Your task to perform on an android device: open app "Nova Launcher" (install if not already installed) Image 0: 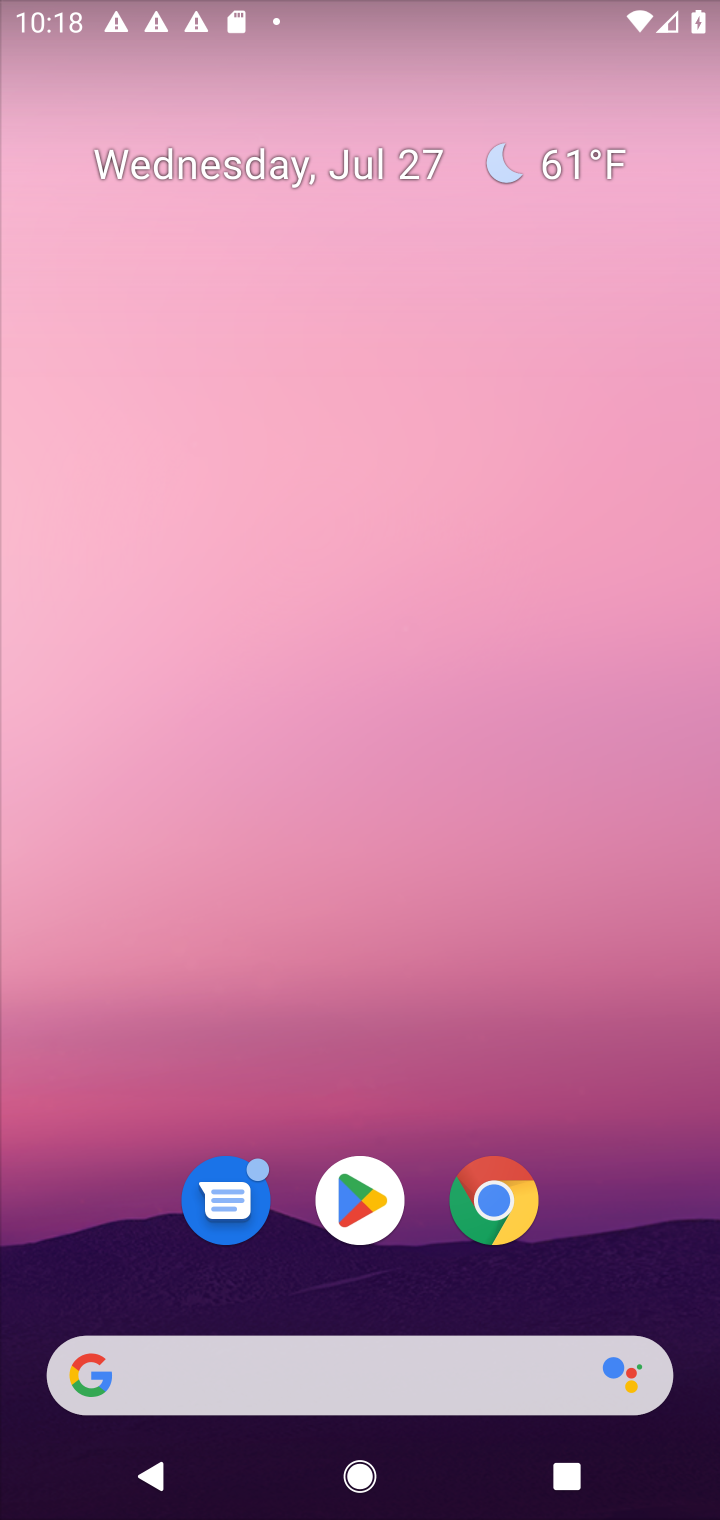
Step 0: click (379, 1174)
Your task to perform on an android device: open app "Nova Launcher" (install if not already installed) Image 1: 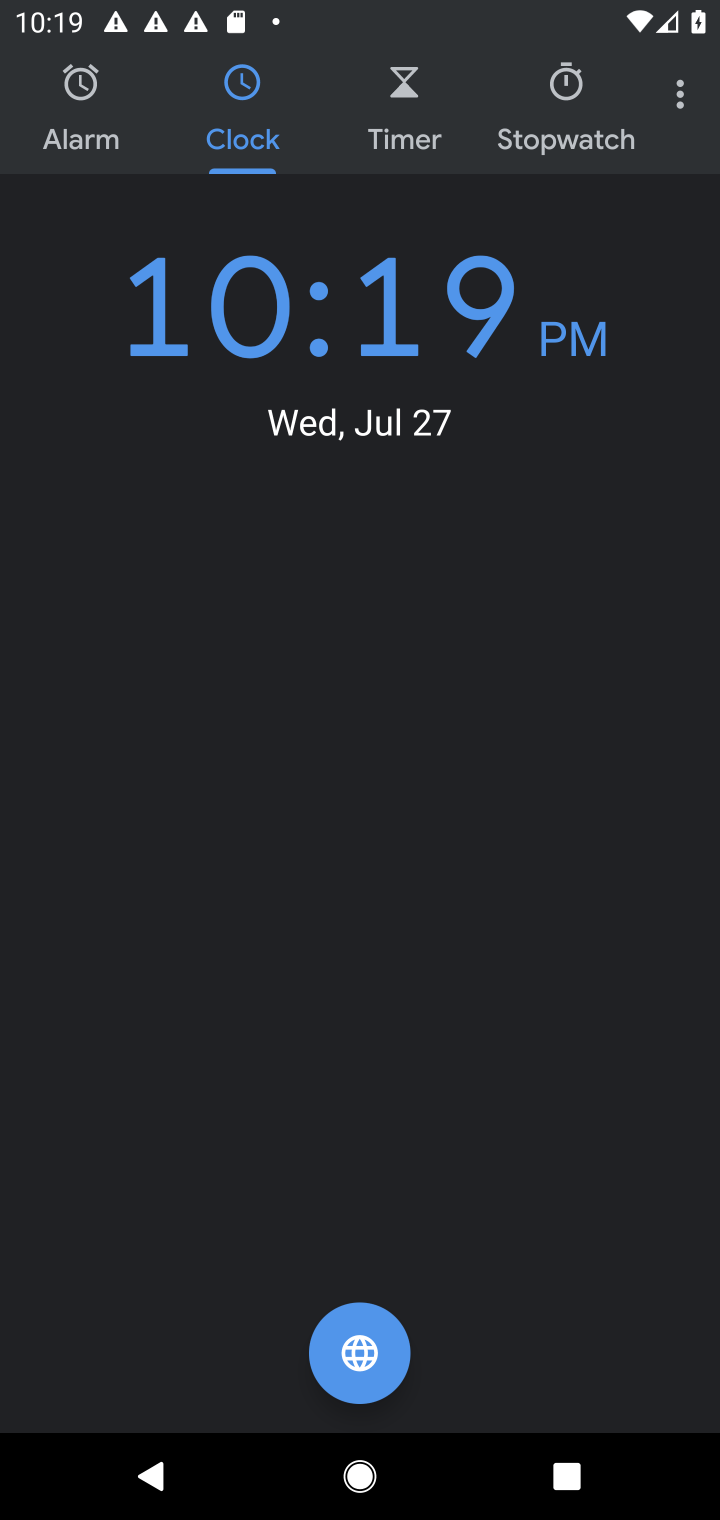
Step 1: press home button
Your task to perform on an android device: open app "Nova Launcher" (install if not already installed) Image 2: 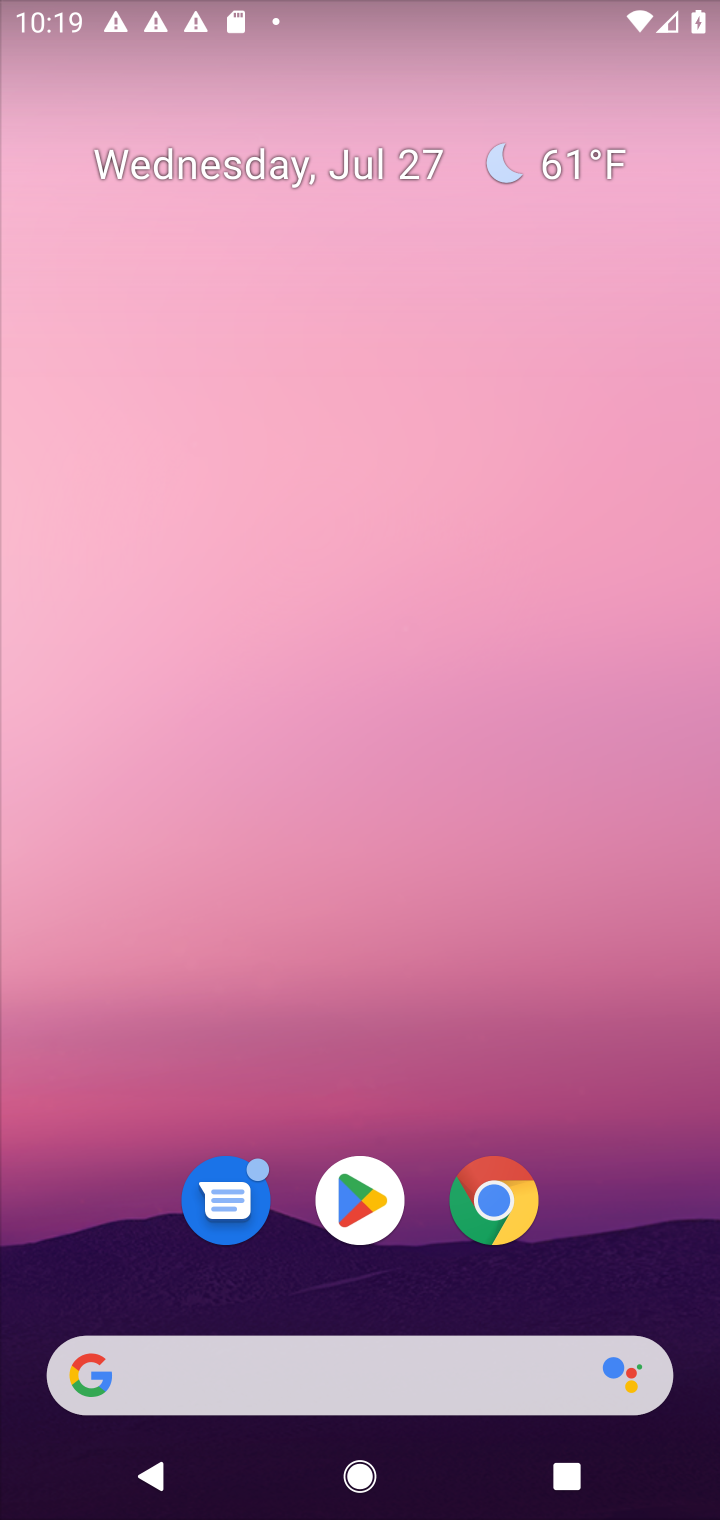
Step 2: click (361, 1200)
Your task to perform on an android device: open app "Nova Launcher" (install if not already installed) Image 3: 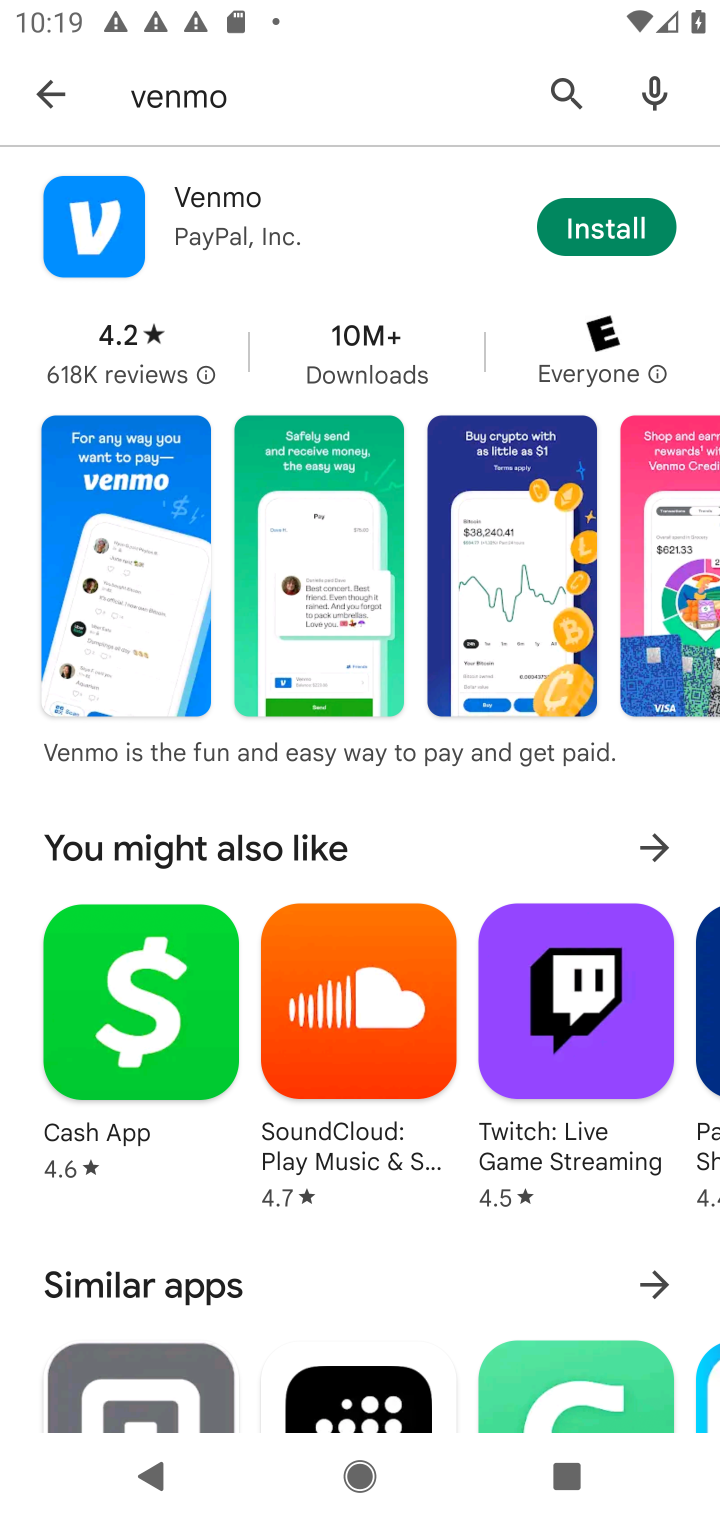
Step 3: click (51, 88)
Your task to perform on an android device: open app "Nova Launcher" (install if not already installed) Image 4: 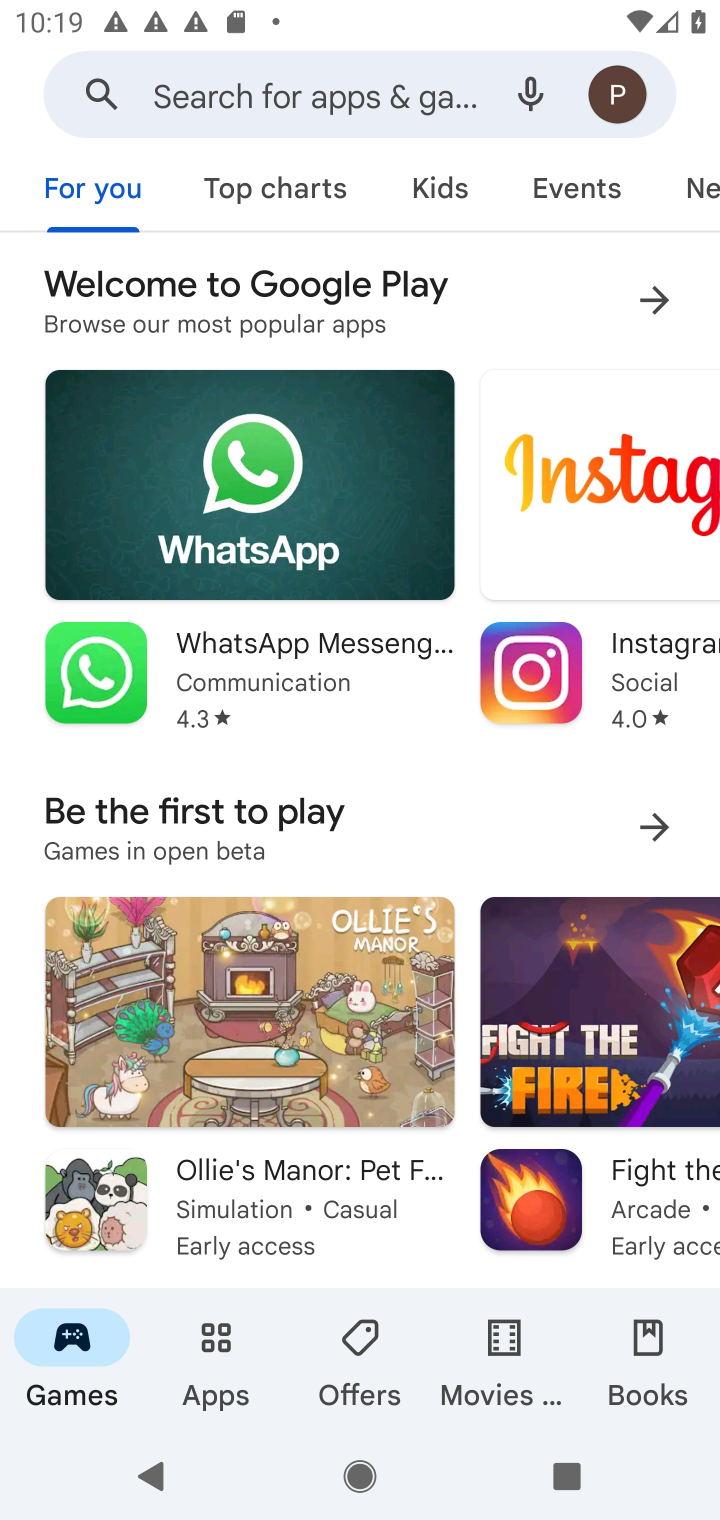
Step 4: click (218, 88)
Your task to perform on an android device: open app "Nova Launcher" (install if not already installed) Image 5: 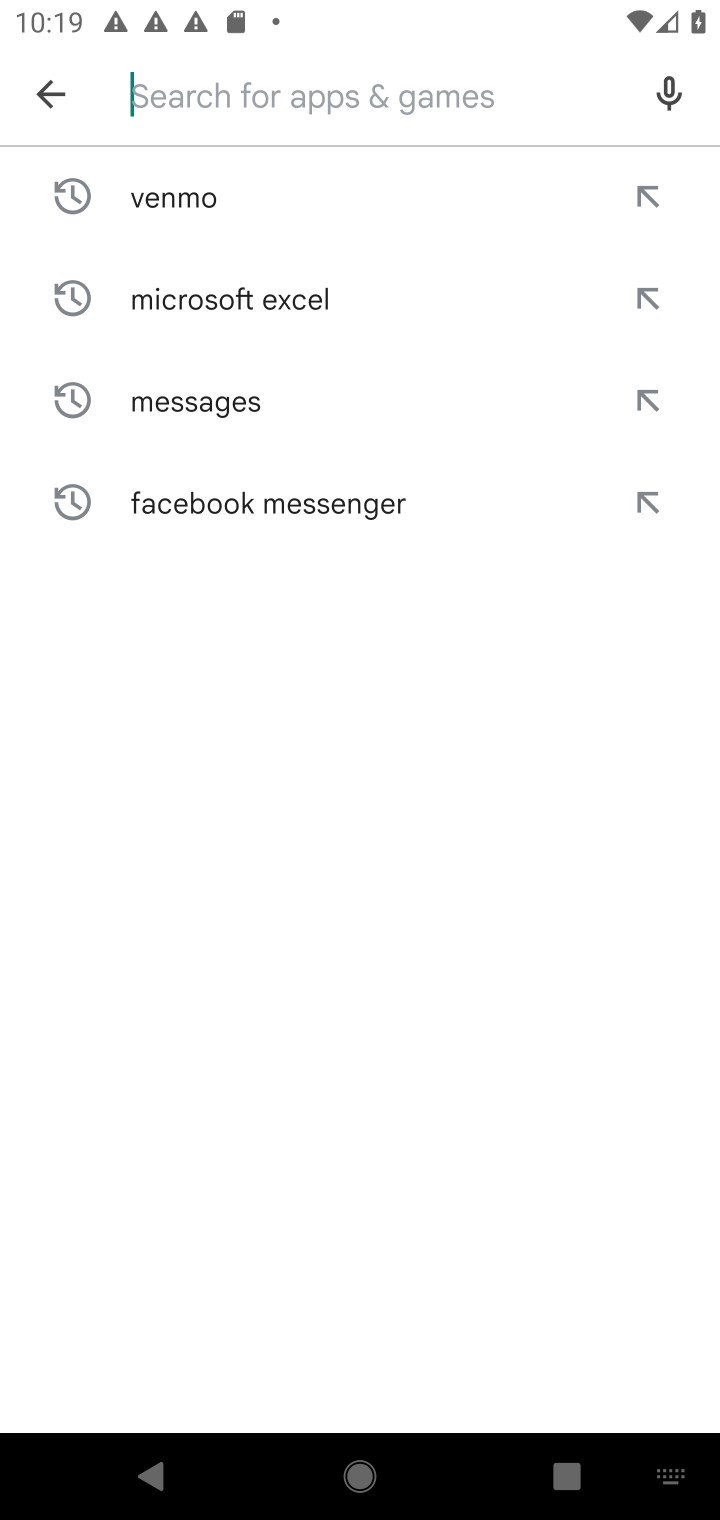
Step 5: type "nova launcher"
Your task to perform on an android device: open app "Nova Launcher" (install if not already installed) Image 6: 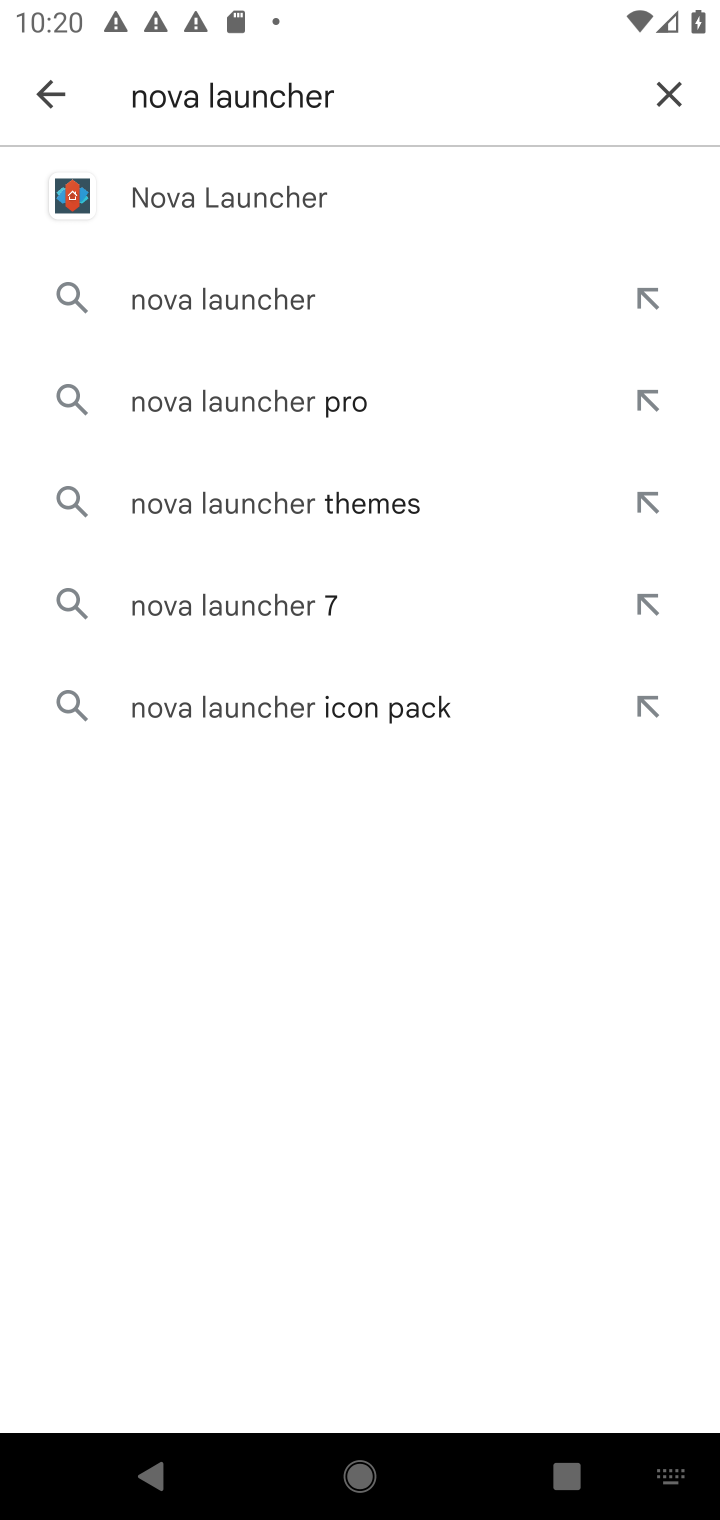
Step 6: click (270, 192)
Your task to perform on an android device: open app "Nova Launcher" (install if not already installed) Image 7: 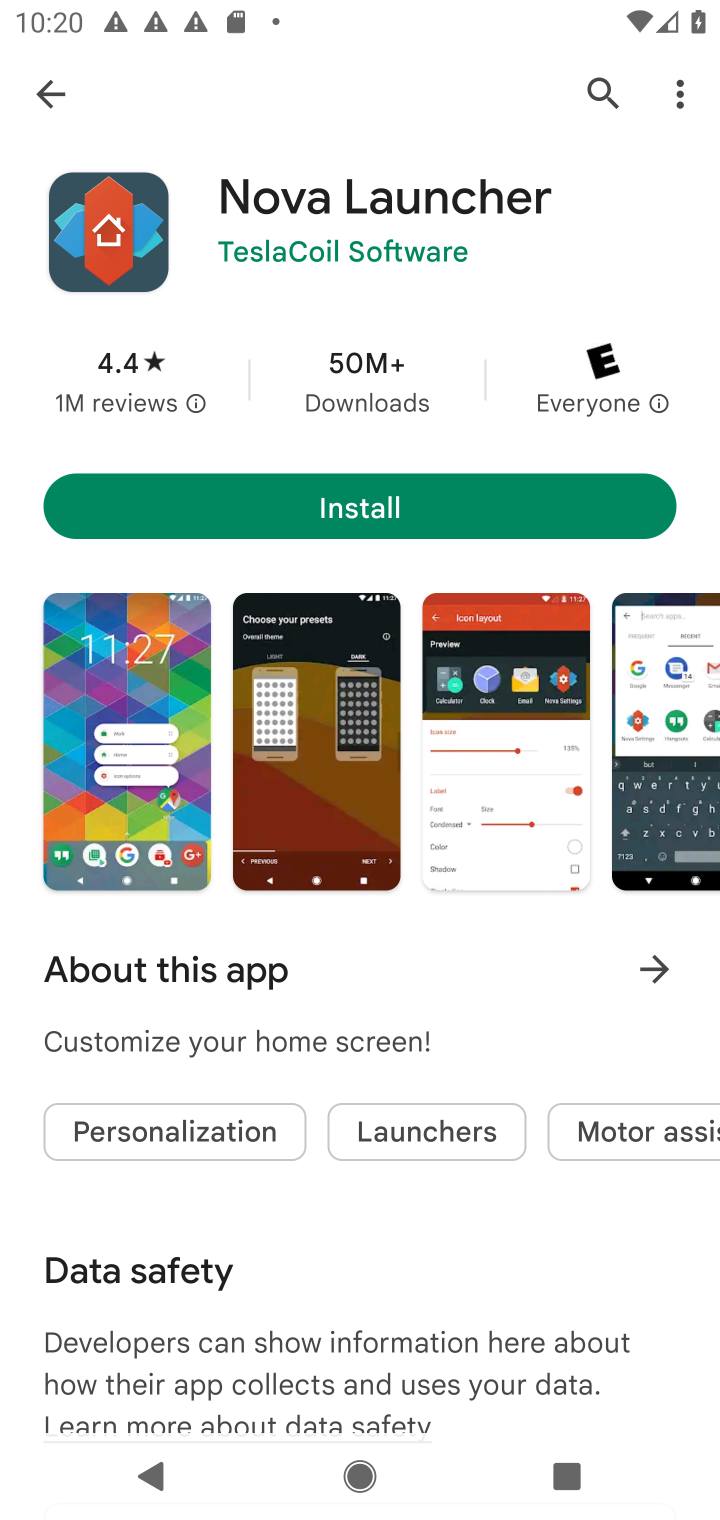
Step 7: click (340, 501)
Your task to perform on an android device: open app "Nova Launcher" (install if not already installed) Image 8: 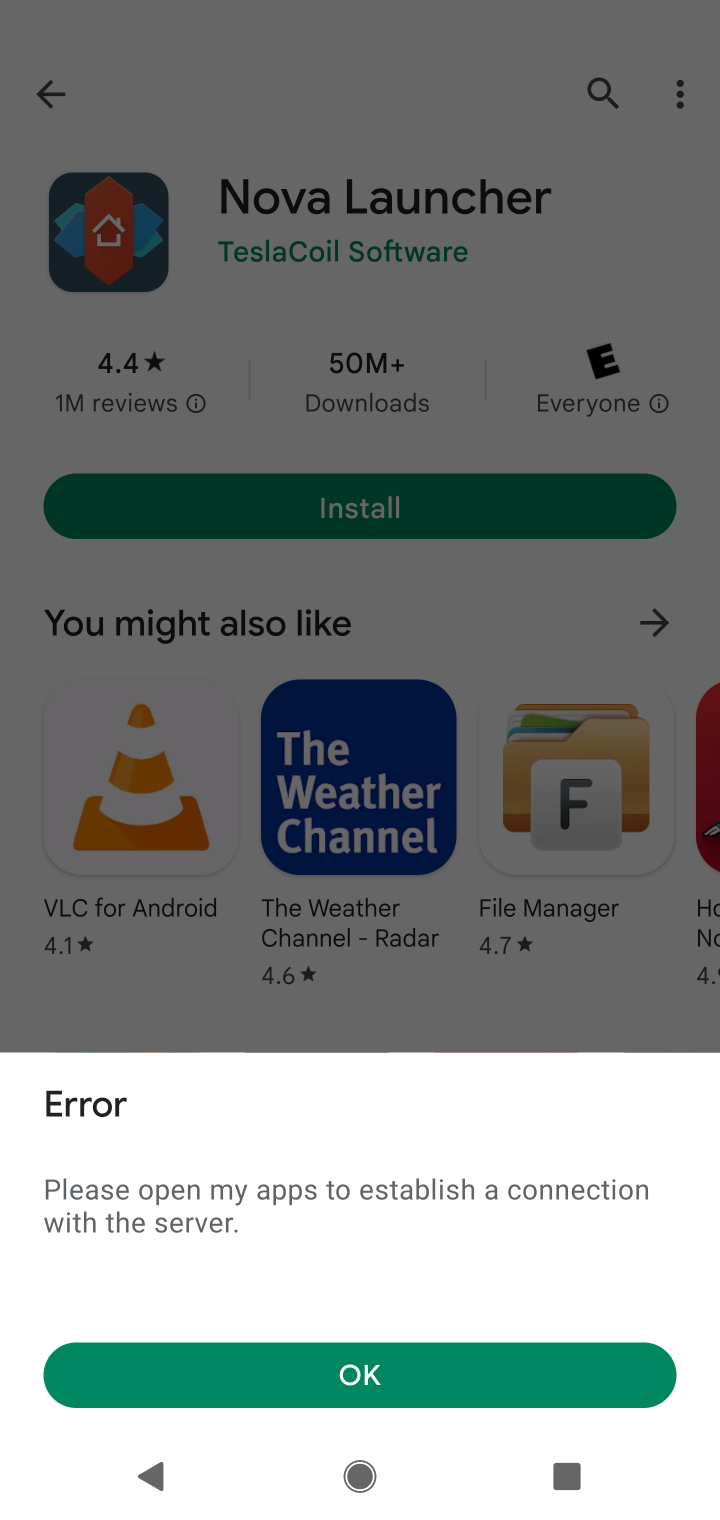
Step 8: click (371, 1362)
Your task to perform on an android device: open app "Nova Launcher" (install if not already installed) Image 9: 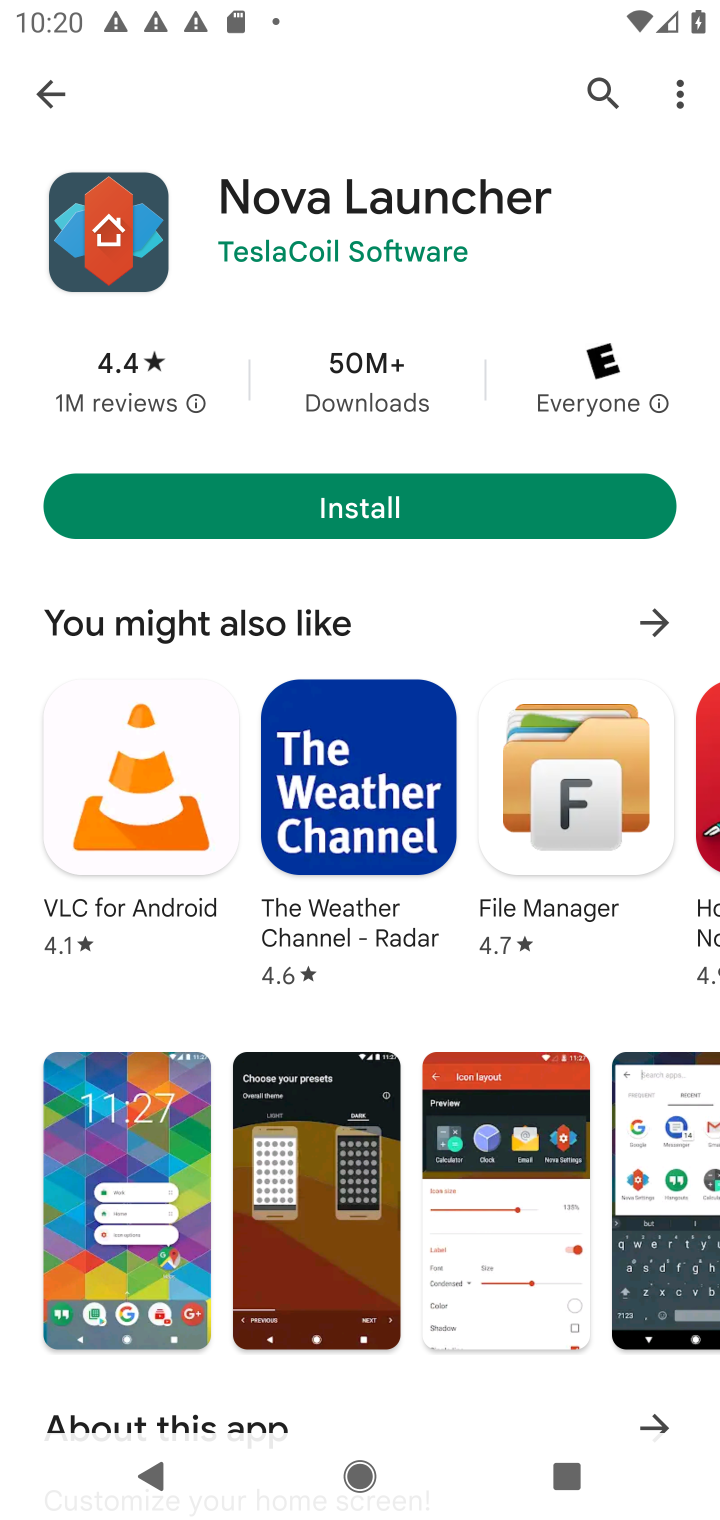
Step 9: click (356, 499)
Your task to perform on an android device: open app "Nova Launcher" (install if not already installed) Image 10: 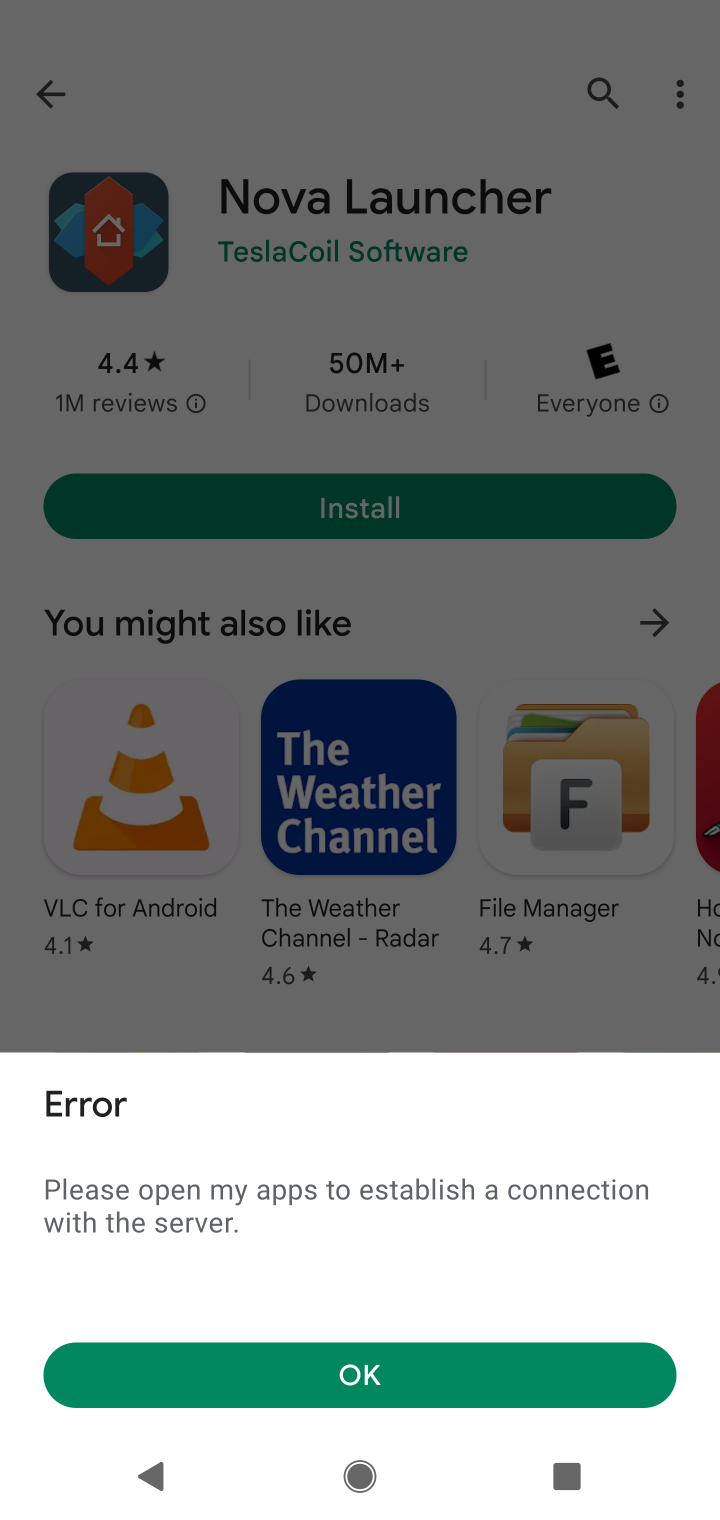
Step 10: click (398, 1367)
Your task to perform on an android device: open app "Nova Launcher" (install if not already installed) Image 11: 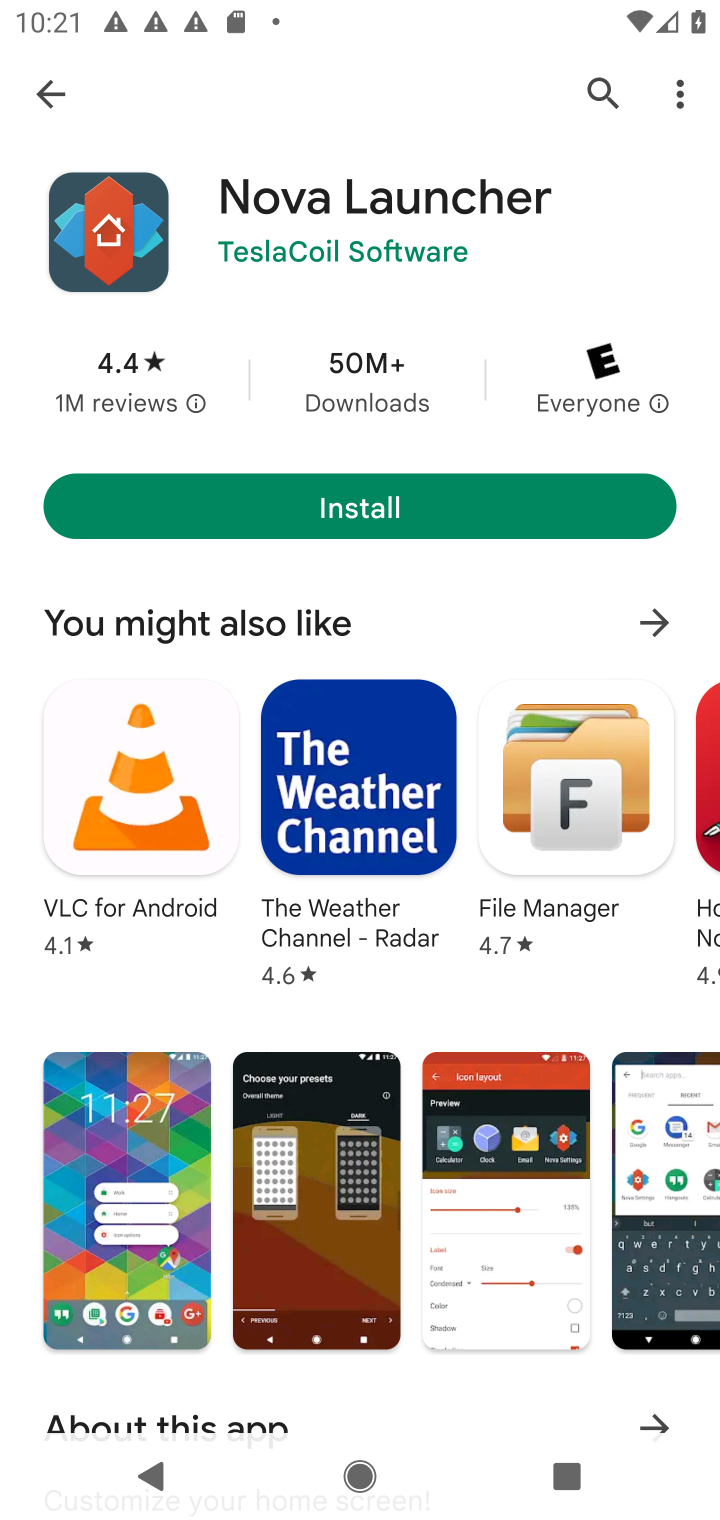
Step 11: task complete